Your task to perform on an android device: Where can I buy a nice beach cooler? Image 0: 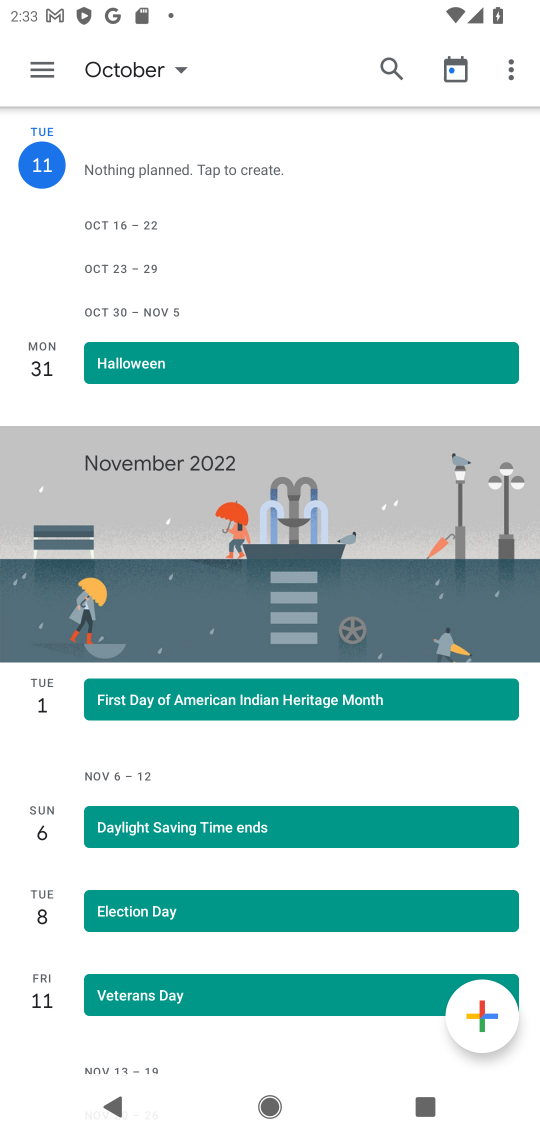
Step 0: press home button
Your task to perform on an android device: Where can I buy a nice beach cooler? Image 1: 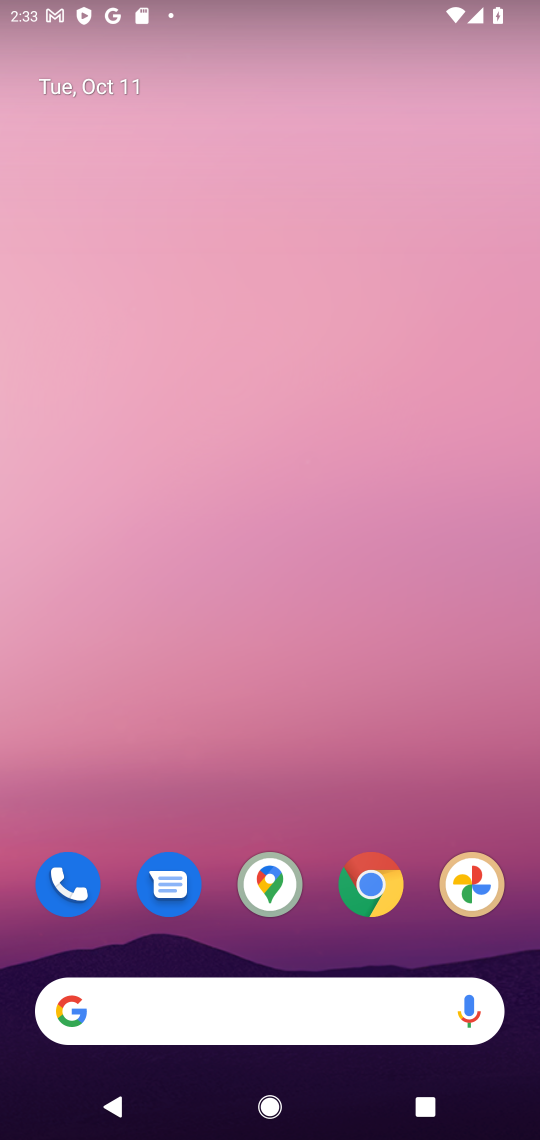
Step 1: click (369, 884)
Your task to perform on an android device: Where can I buy a nice beach cooler? Image 2: 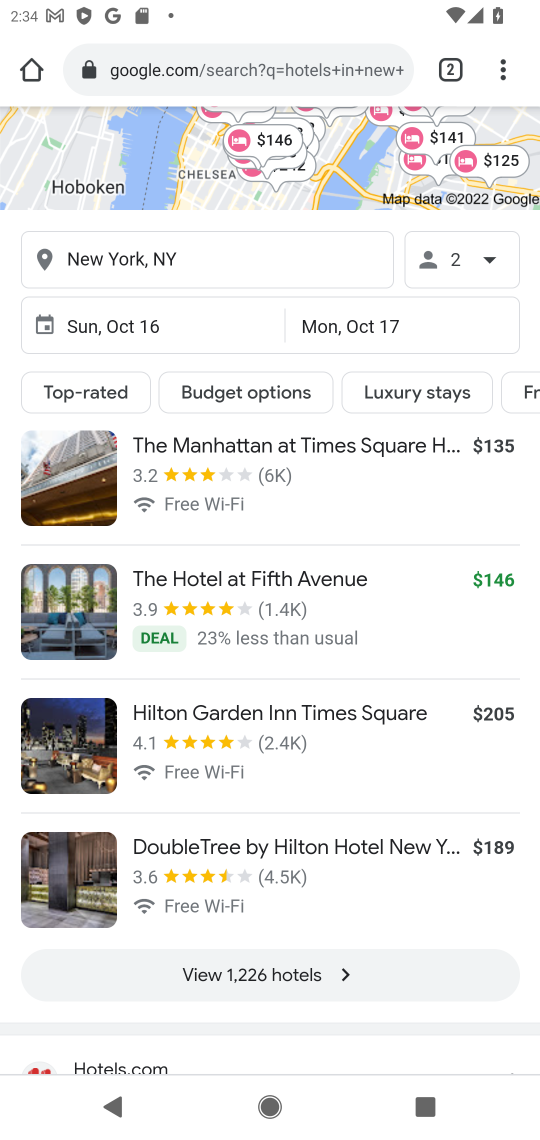
Step 2: click (331, 69)
Your task to perform on an android device: Where can I buy a nice beach cooler? Image 3: 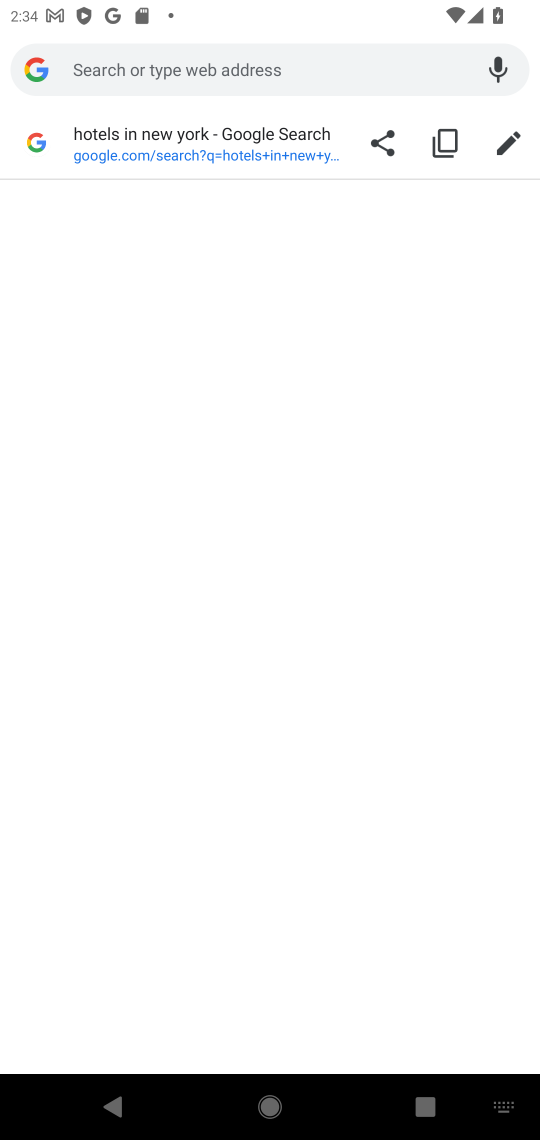
Step 3: type "Where can I buy a nice beach cooler"
Your task to perform on an android device: Where can I buy a nice beach cooler? Image 4: 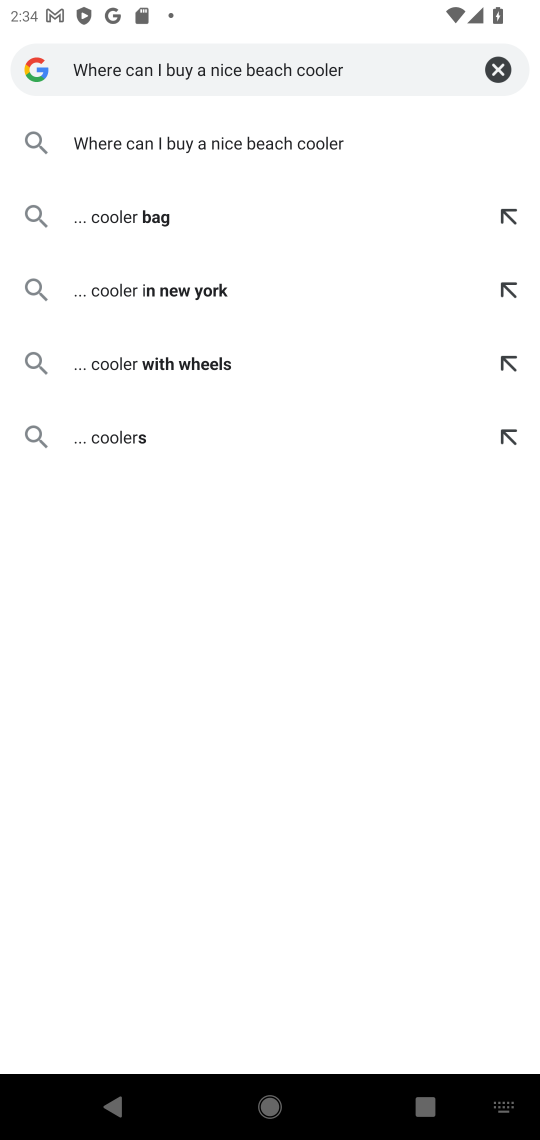
Step 4: click (285, 149)
Your task to perform on an android device: Where can I buy a nice beach cooler? Image 5: 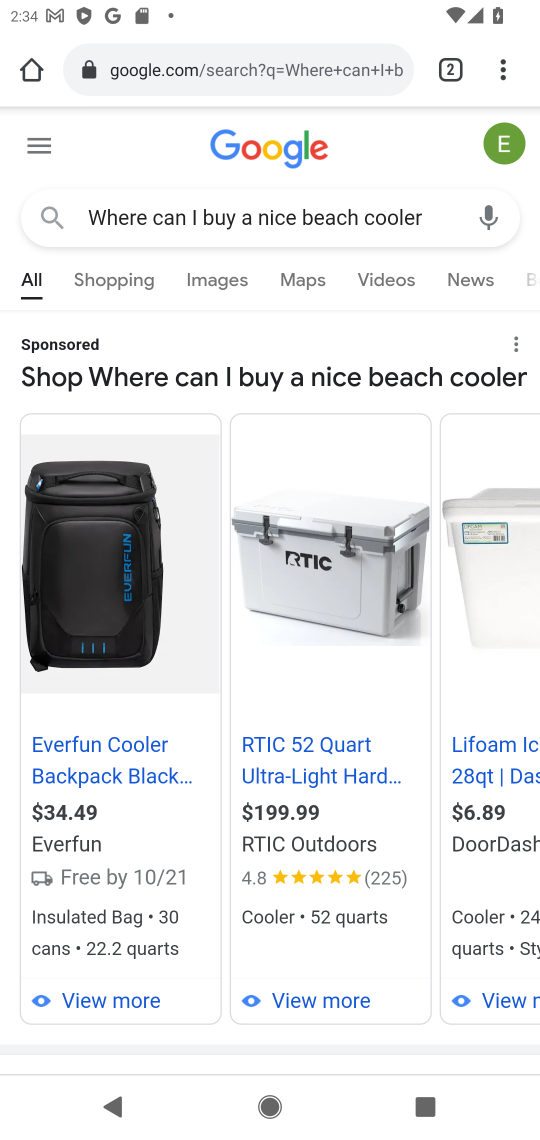
Step 5: task complete